Your task to perform on an android device: Search for Mexican restaurants on Maps Image 0: 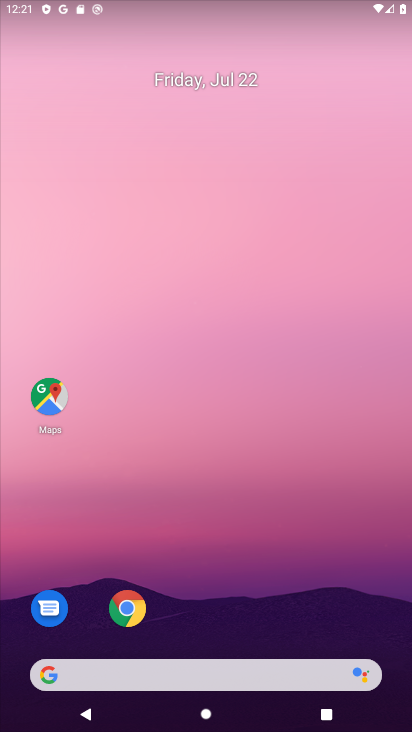
Step 0: press home button
Your task to perform on an android device: Search for Mexican restaurants on Maps Image 1: 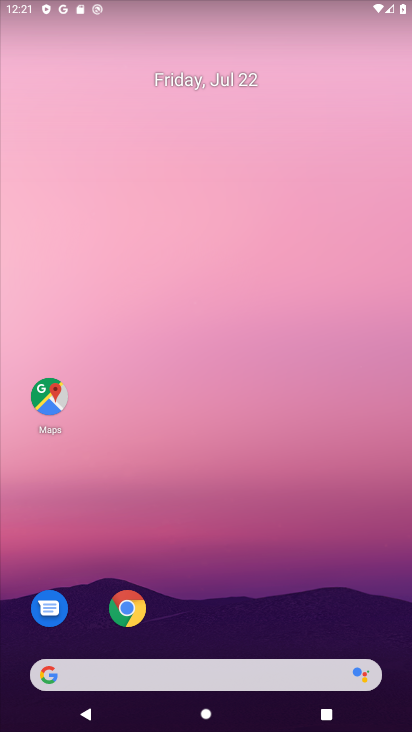
Step 1: click (43, 390)
Your task to perform on an android device: Search for Mexican restaurants on Maps Image 2: 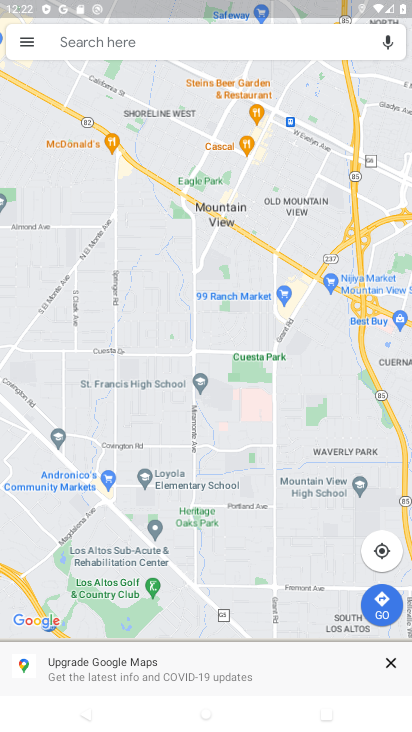
Step 2: click (112, 34)
Your task to perform on an android device: Search for Mexican restaurants on Maps Image 3: 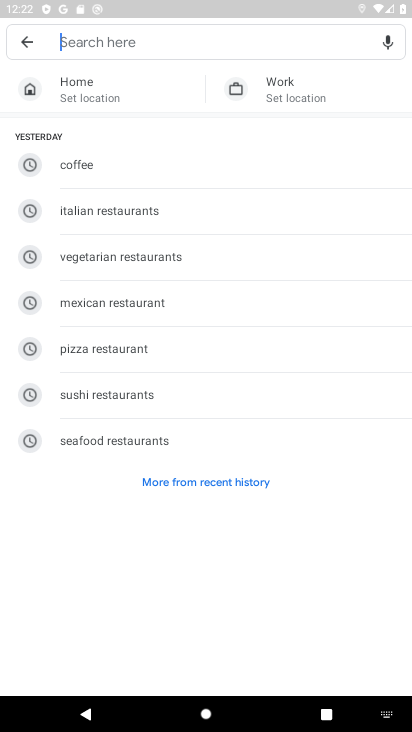
Step 3: click (107, 302)
Your task to perform on an android device: Search for Mexican restaurants on Maps Image 4: 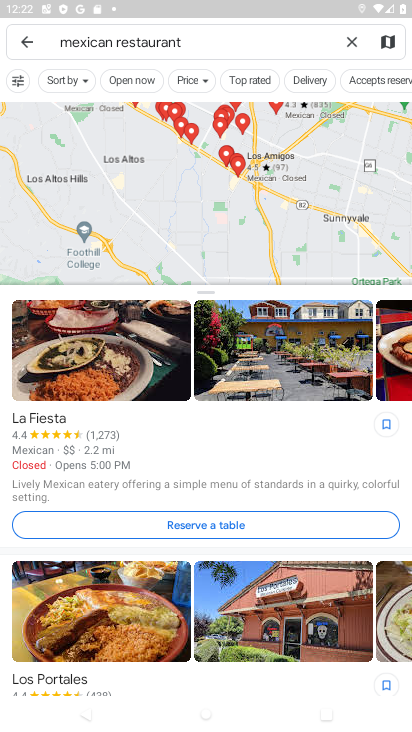
Step 4: task complete